Your task to perform on an android device: delete the emails in spam in the gmail app Image 0: 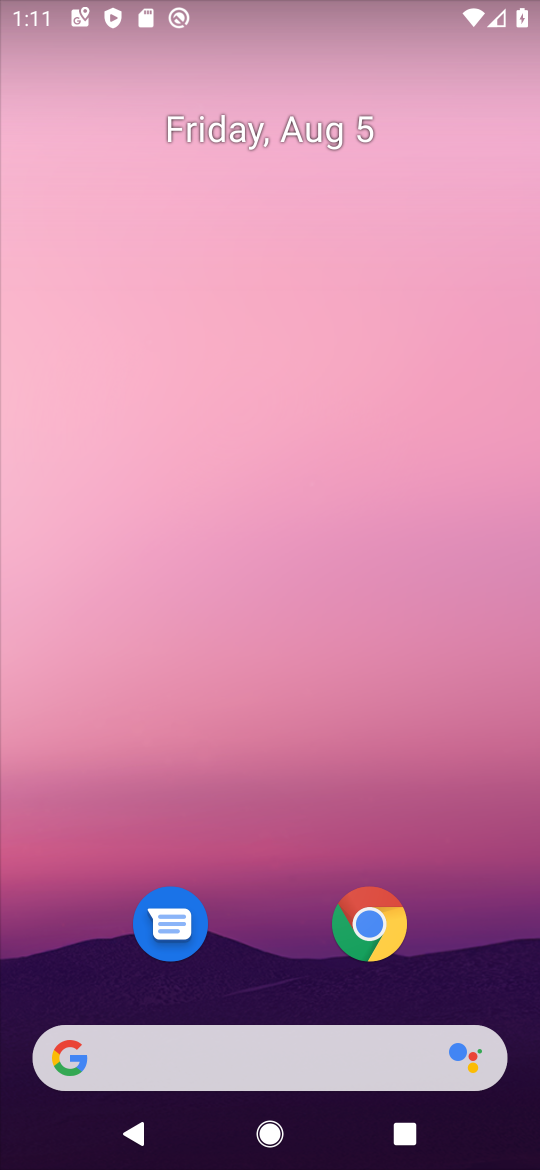
Step 0: drag from (235, 1064) to (265, 127)
Your task to perform on an android device: delete the emails in spam in the gmail app Image 1: 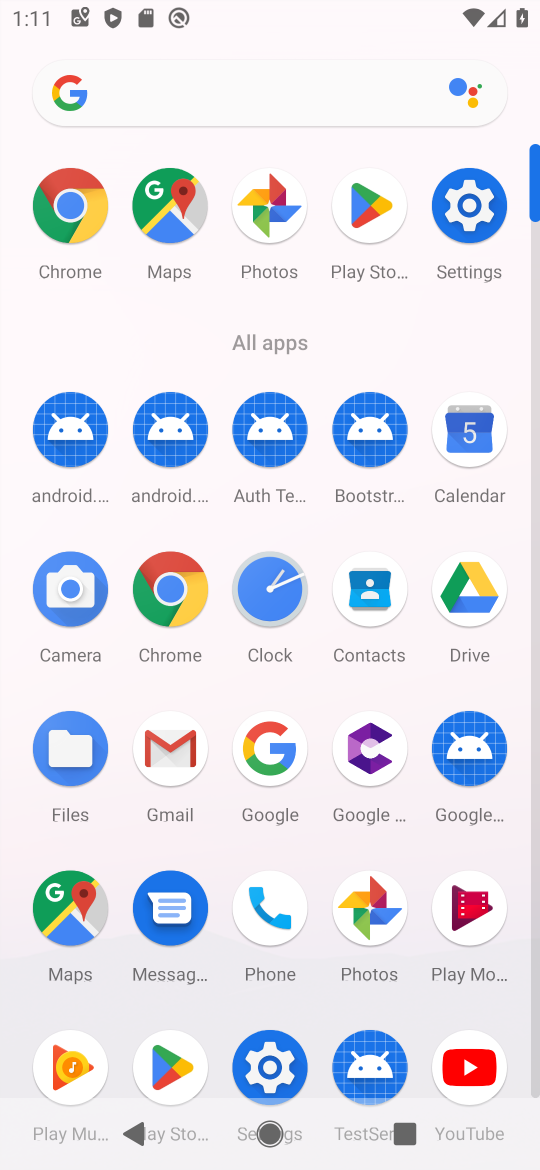
Step 1: click (170, 751)
Your task to perform on an android device: delete the emails in spam in the gmail app Image 2: 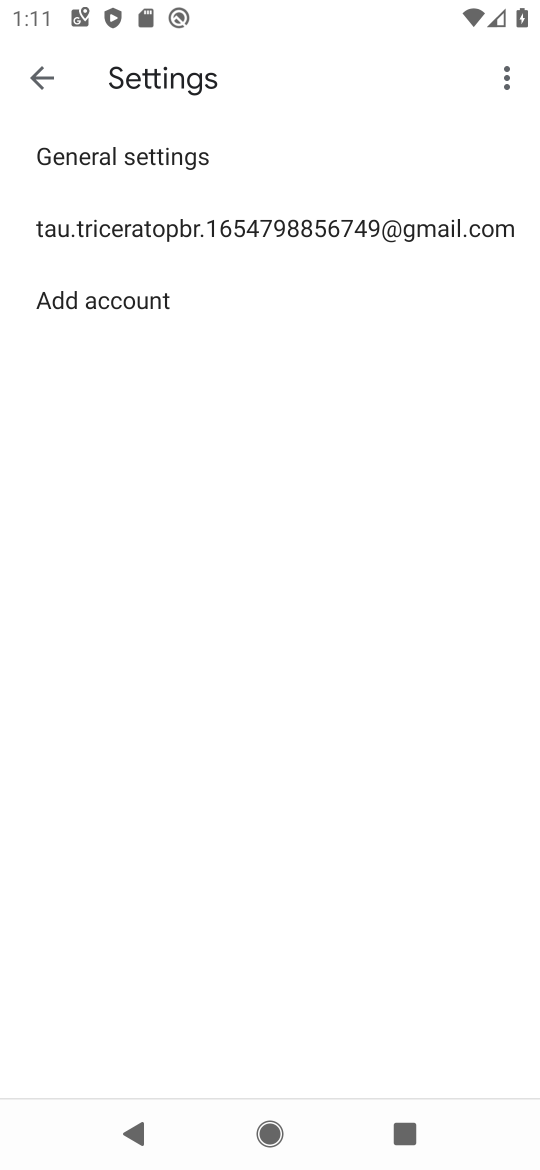
Step 2: press back button
Your task to perform on an android device: delete the emails in spam in the gmail app Image 3: 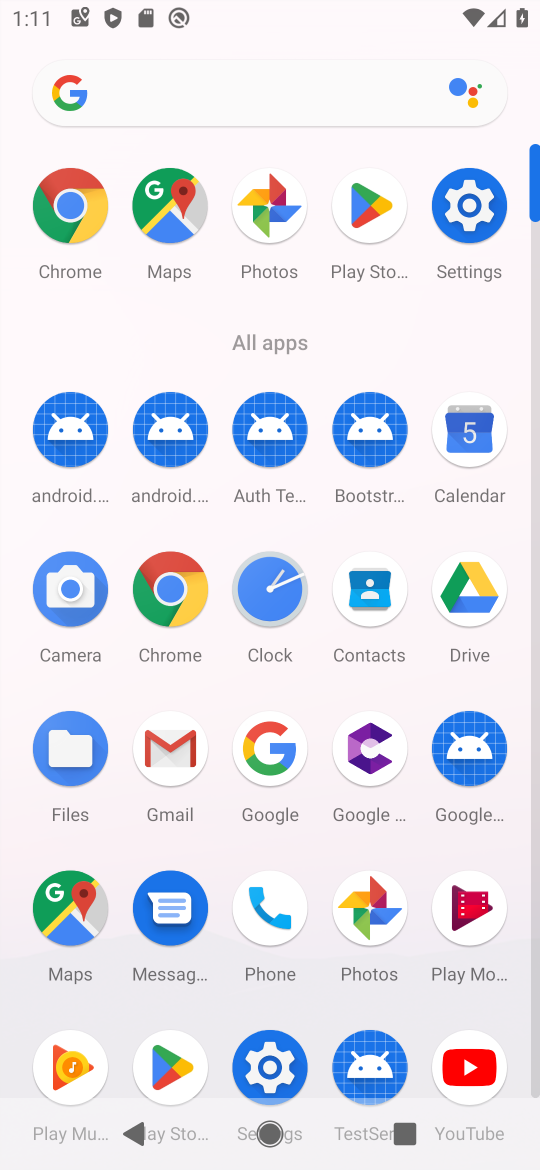
Step 3: click (169, 744)
Your task to perform on an android device: delete the emails in spam in the gmail app Image 4: 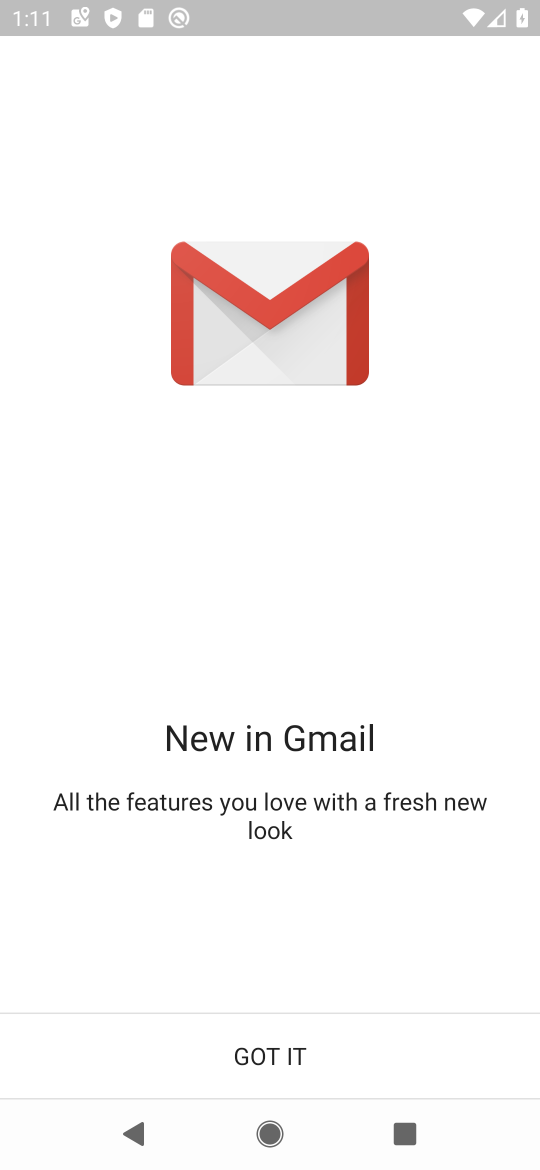
Step 4: click (272, 1053)
Your task to perform on an android device: delete the emails in spam in the gmail app Image 5: 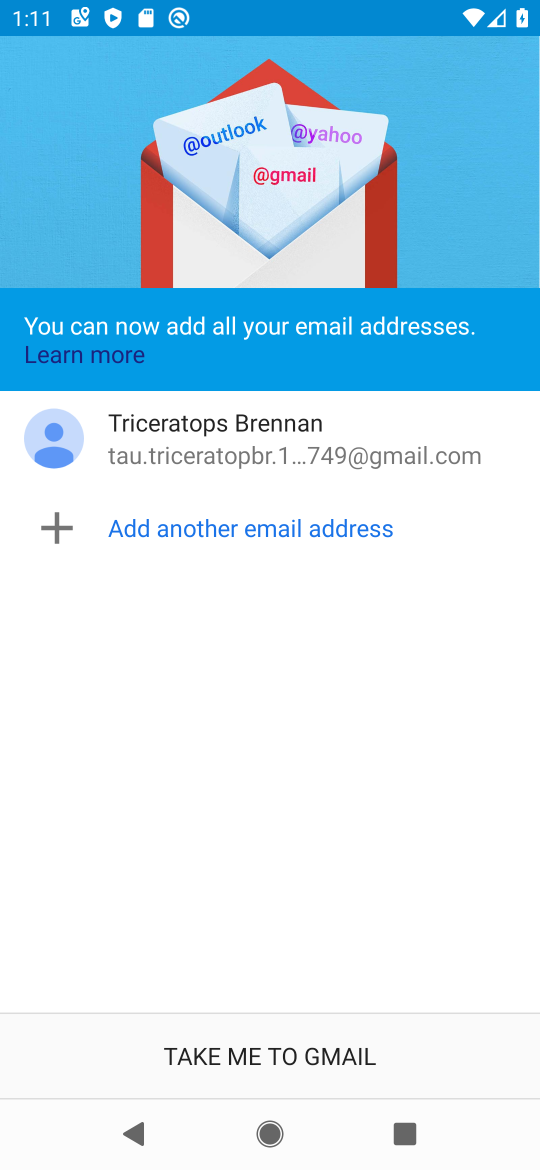
Step 5: click (222, 1065)
Your task to perform on an android device: delete the emails in spam in the gmail app Image 6: 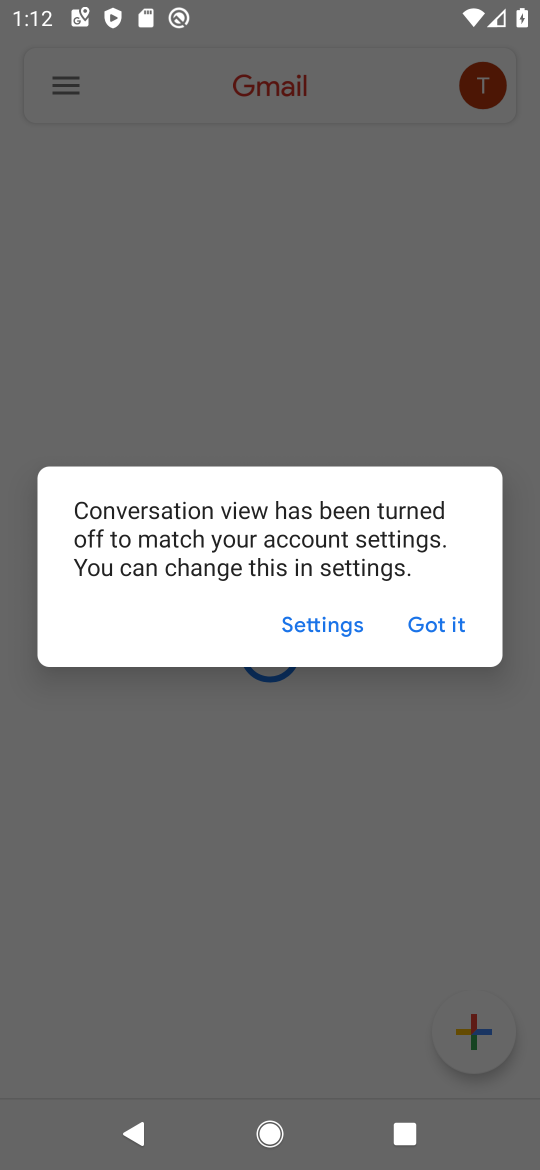
Step 6: click (449, 629)
Your task to perform on an android device: delete the emails in spam in the gmail app Image 7: 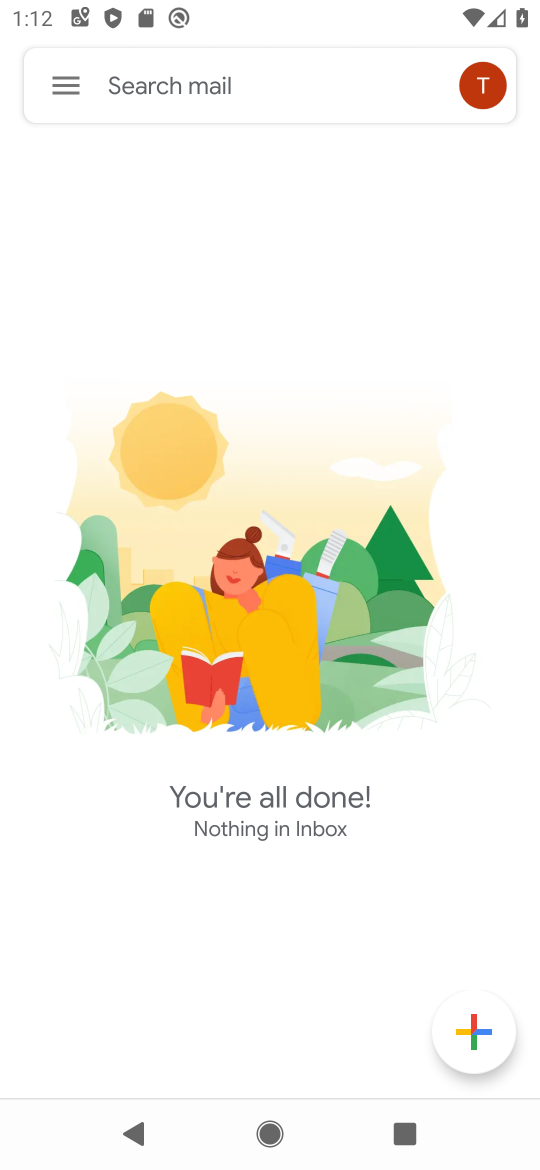
Step 7: click (61, 84)
Your task to perform on an android device: delete the emails in spam in the gmail app Image 8: 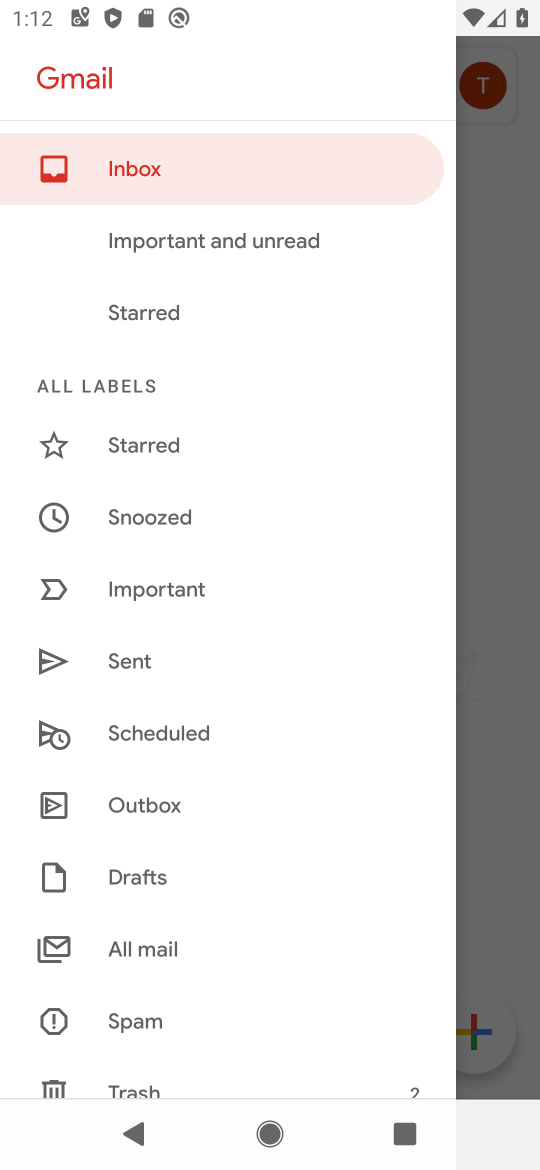
Step 8: click (172, 1020)
Your task to perform on an android device: delete the emails in spam in the gmail app Image 9: 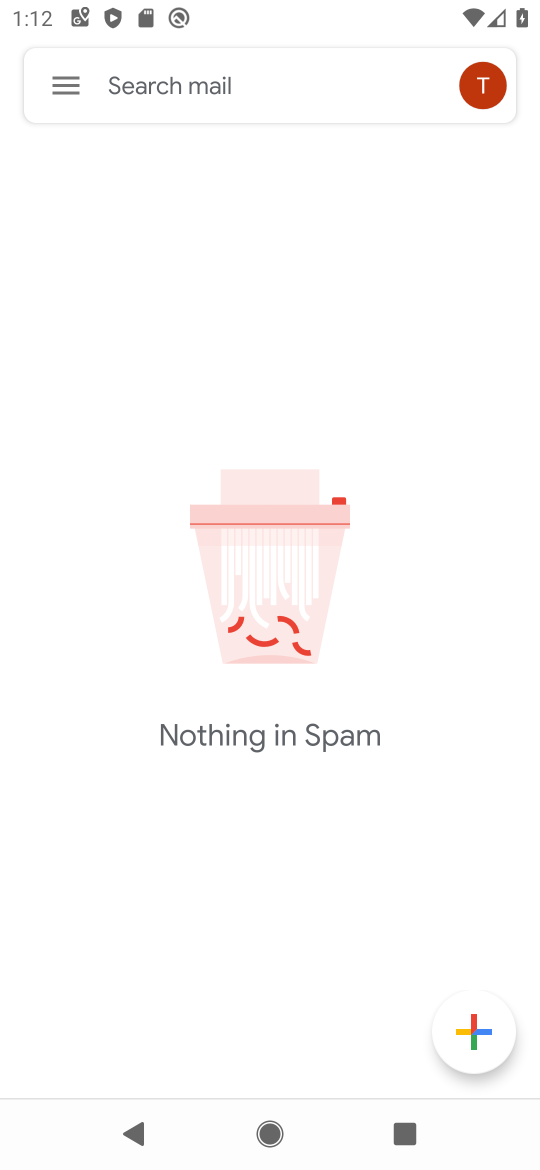
Step 9: task complete